Your task to perform on an android device: Is it going to rain tomorrow? Image 0: 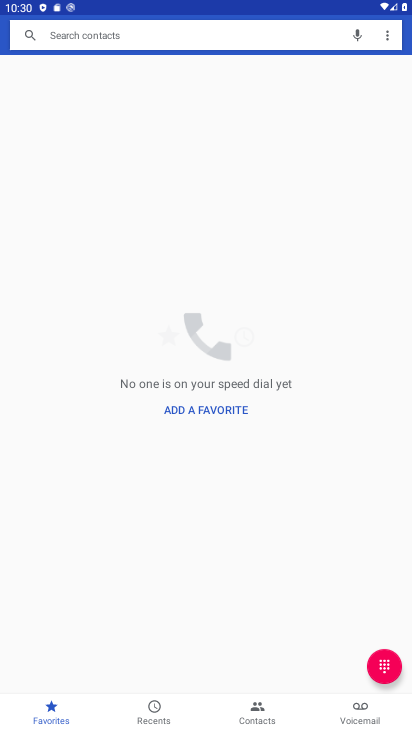
Step 0: press home button
Your task to perform on an android device: Is it going to rain tomorrow? Image 1: 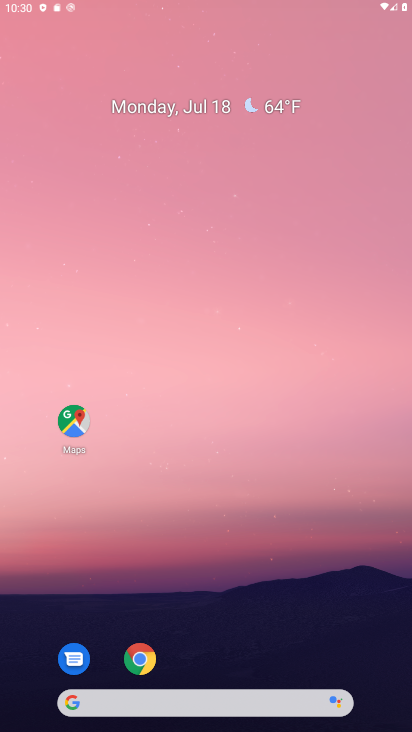
Step 1: drag from (192, 287) to (245, 0)
Your task to perform on an android device: Is it going to rain tomorrow? Image 2: 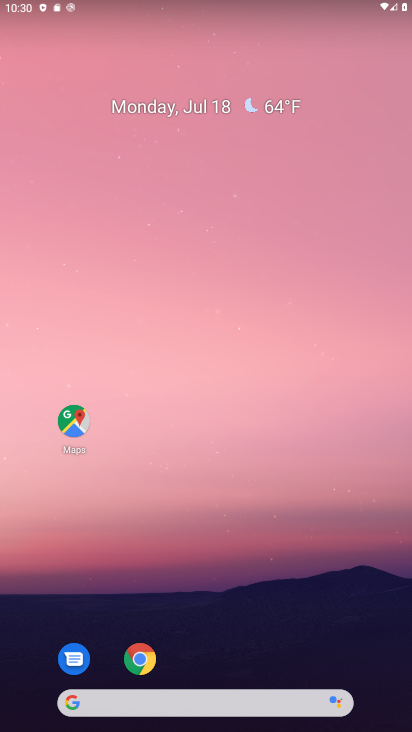
Step 2: drag from (166, 686) to (128, 26)
Your task to perform on an android device: Is it going to rain tomorrow? Image 3: 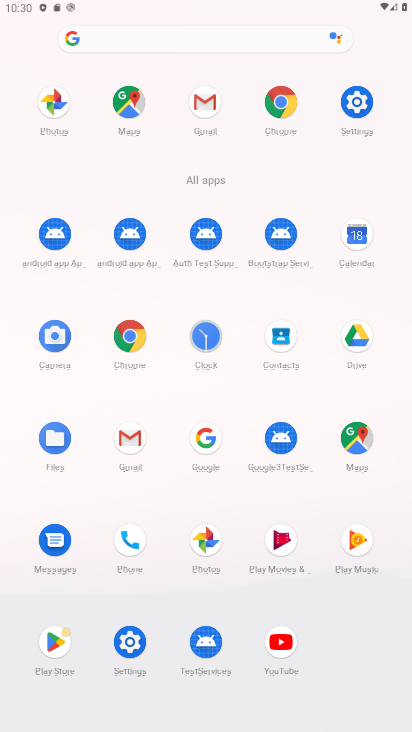
Step 3: click (145, 348)
Your task to perform on an android device: Is it going to rain tomorrow? Image 4: 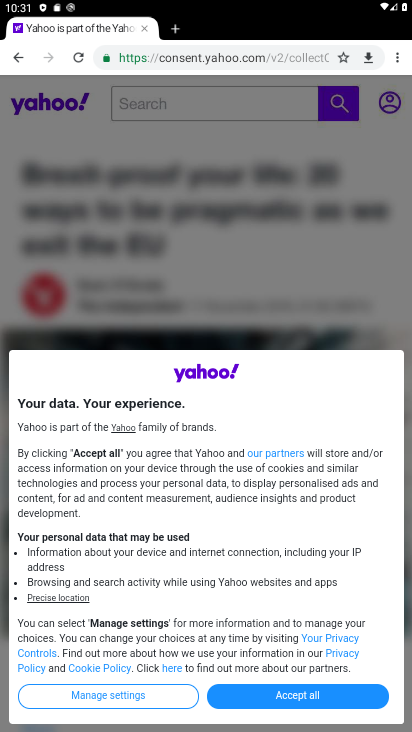
Step 4: click (265, 51)
Your task to perform on an android device: Is it going to rain tomorrow? Image 5: 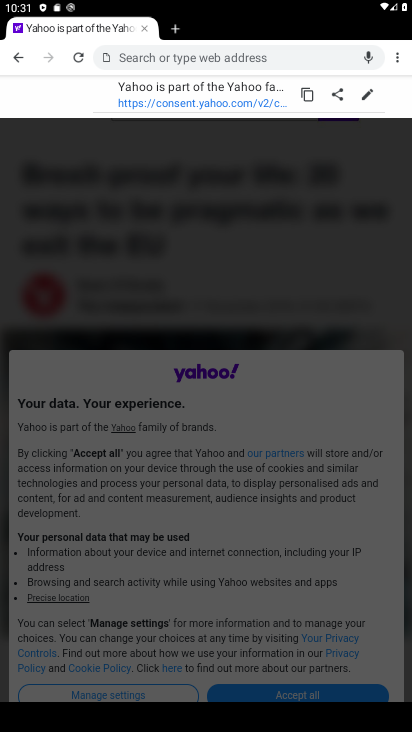
Step 5: type "is it going to rain tomorrow"
Your task to perform on an android device: Is it going to rain tomorrow? Image 6: 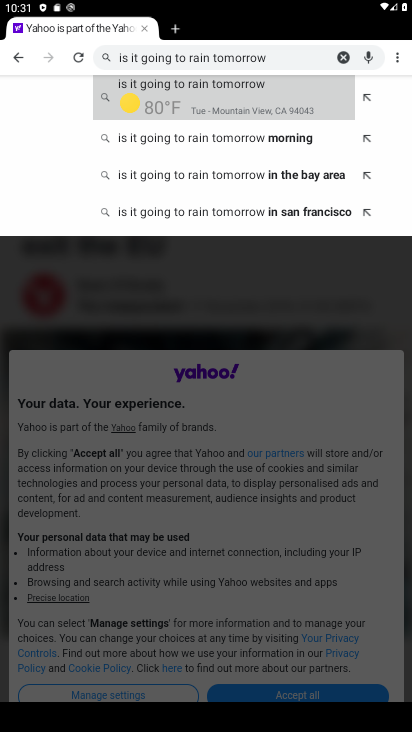
Step 6: click (256, 104)
Your task to perform on an android device: Is it going to rain tomorrow? Image 7: 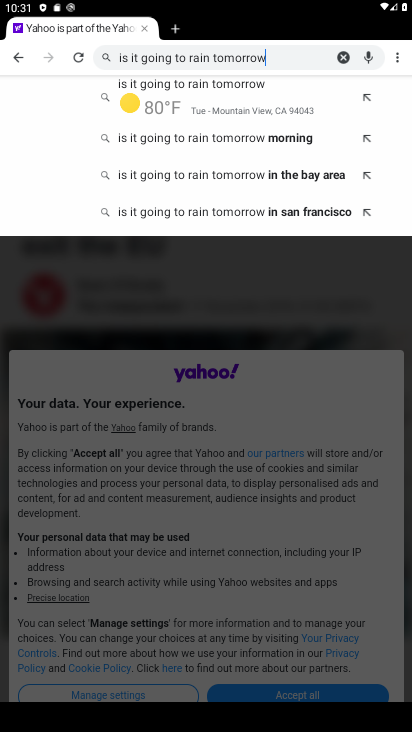
Step 7: click (196, 98)
Your task to perform on an android device: Is it going to rain tomorrow? Image 8: 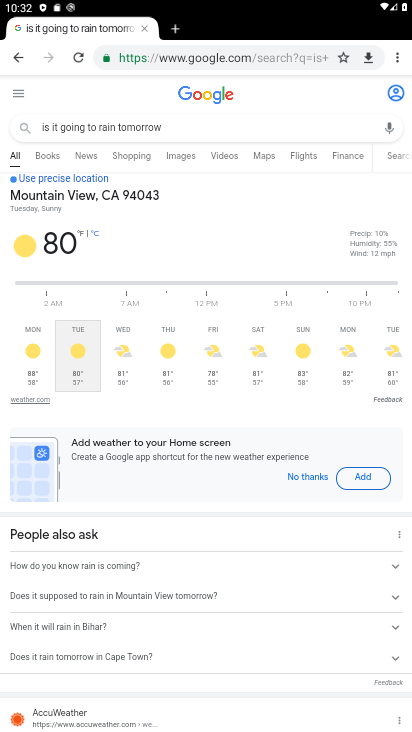
Step 8: task complete